Your task to perform on an android device: Open Chrome and go to the settings page Image 0: 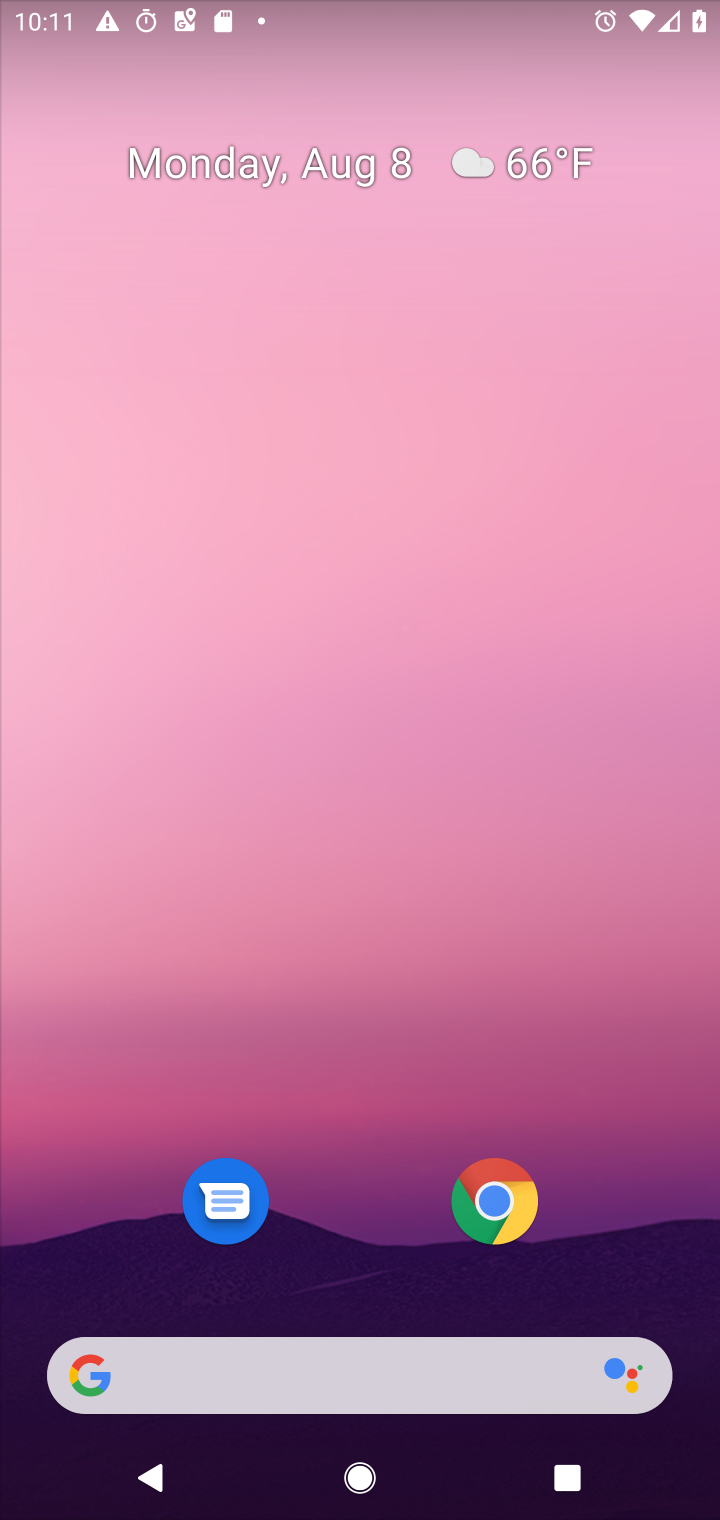
Step 0: press home button
Your task to perform on an android device: Open Chrome and go to the settings page Image 1: 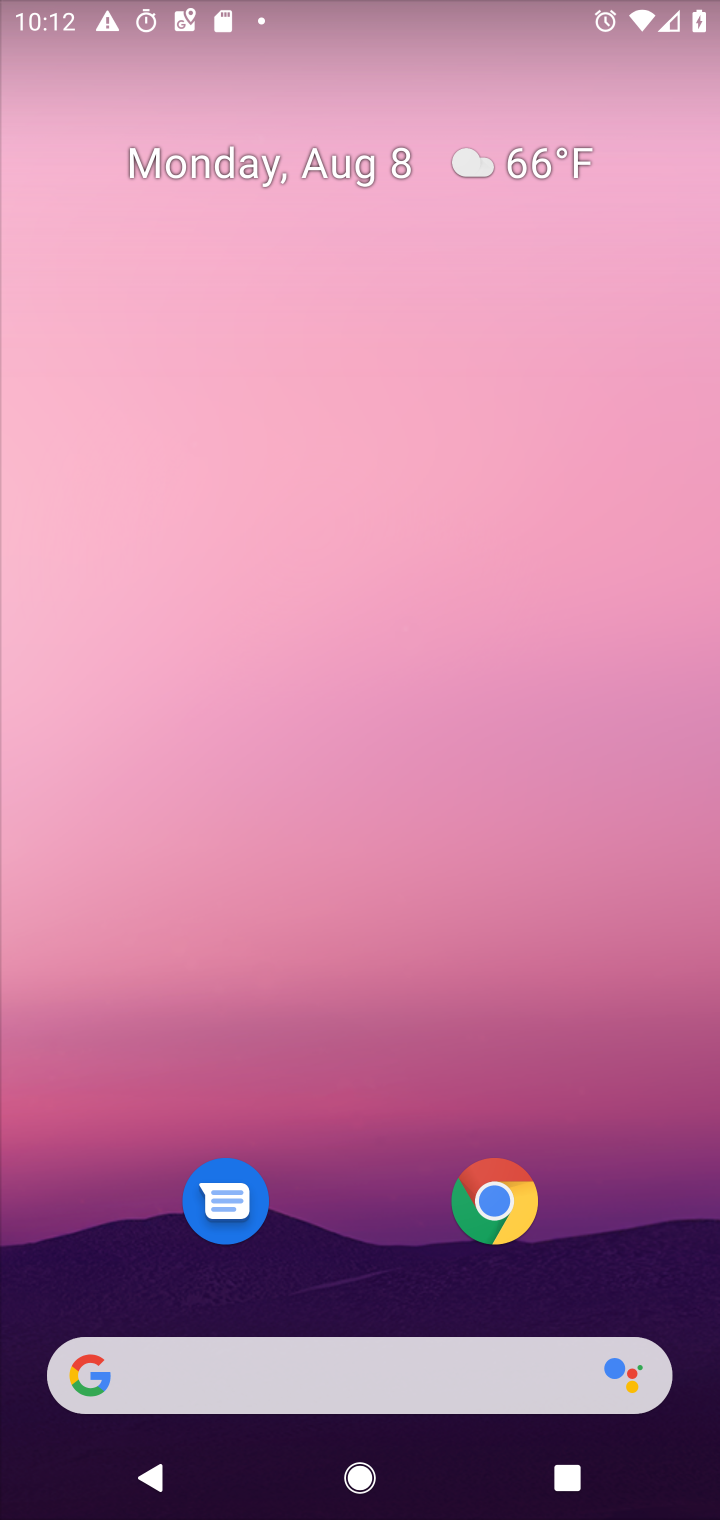
Step 1: drag from (378, 1266) to (427, 325)
Your task to perform on an android device: Open Chrome and go to the settings page Image 2: 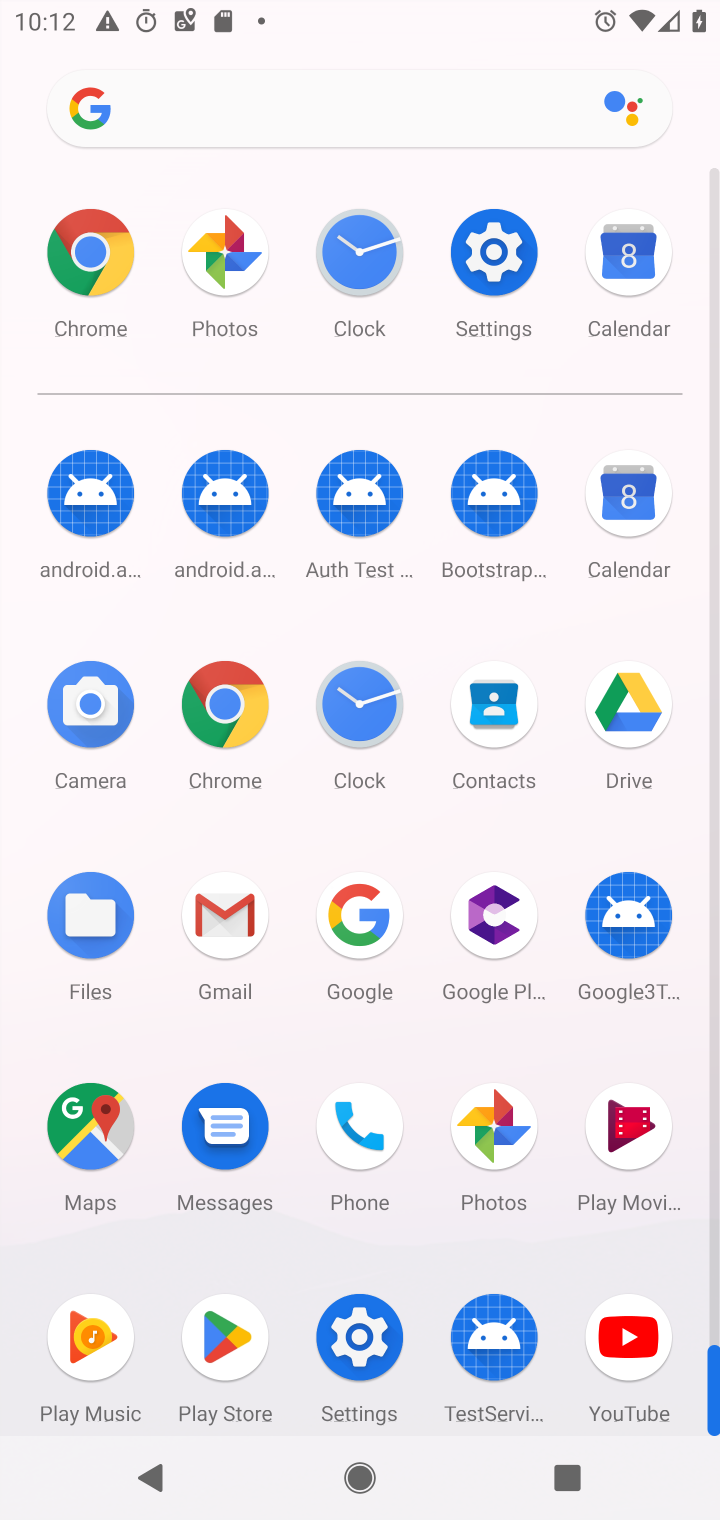
Step 2: click (211, 715)
Your task to perform on an android device: Open Chrome and go to the settings page Image 3: 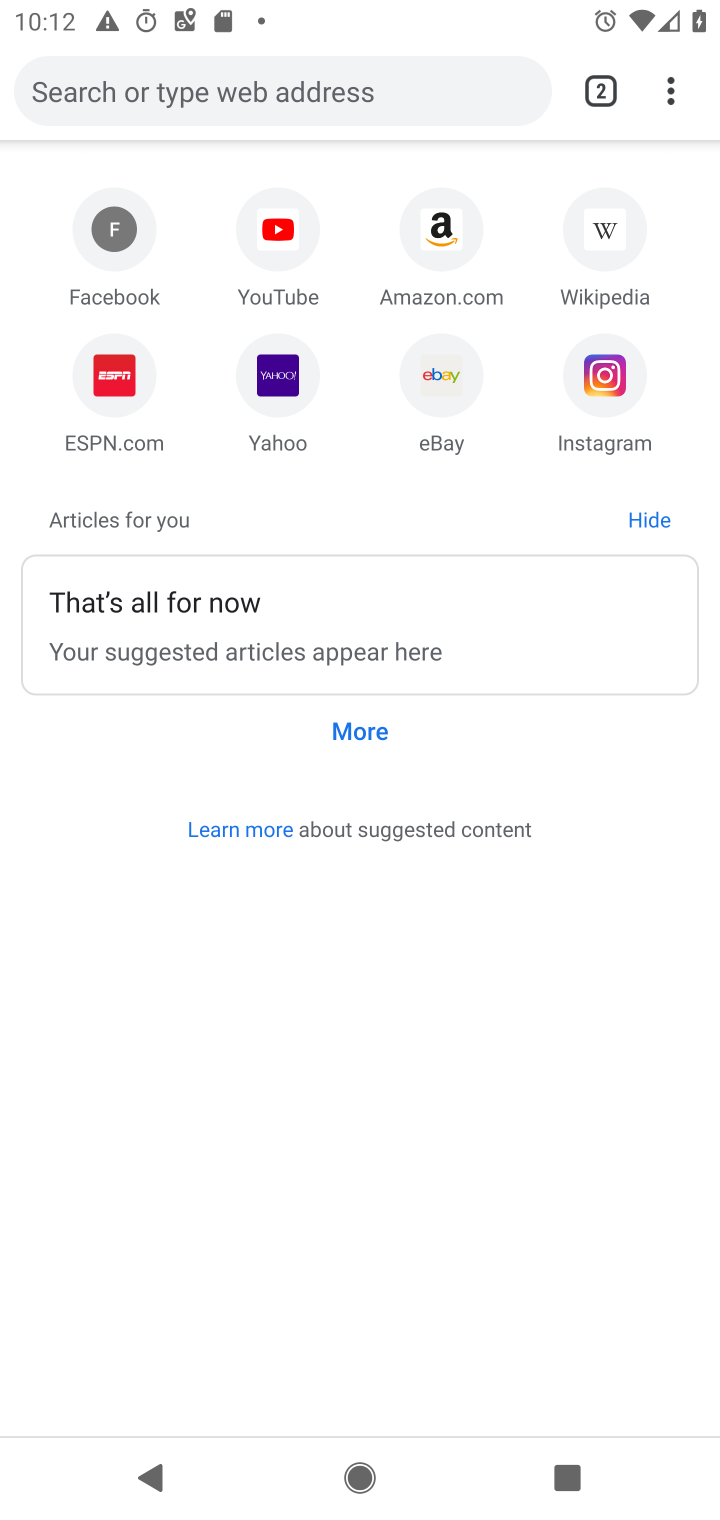
Step 3: click (667, 89)
Your task to perform on an android device: Open Chrome and go to the settings page Image 4: 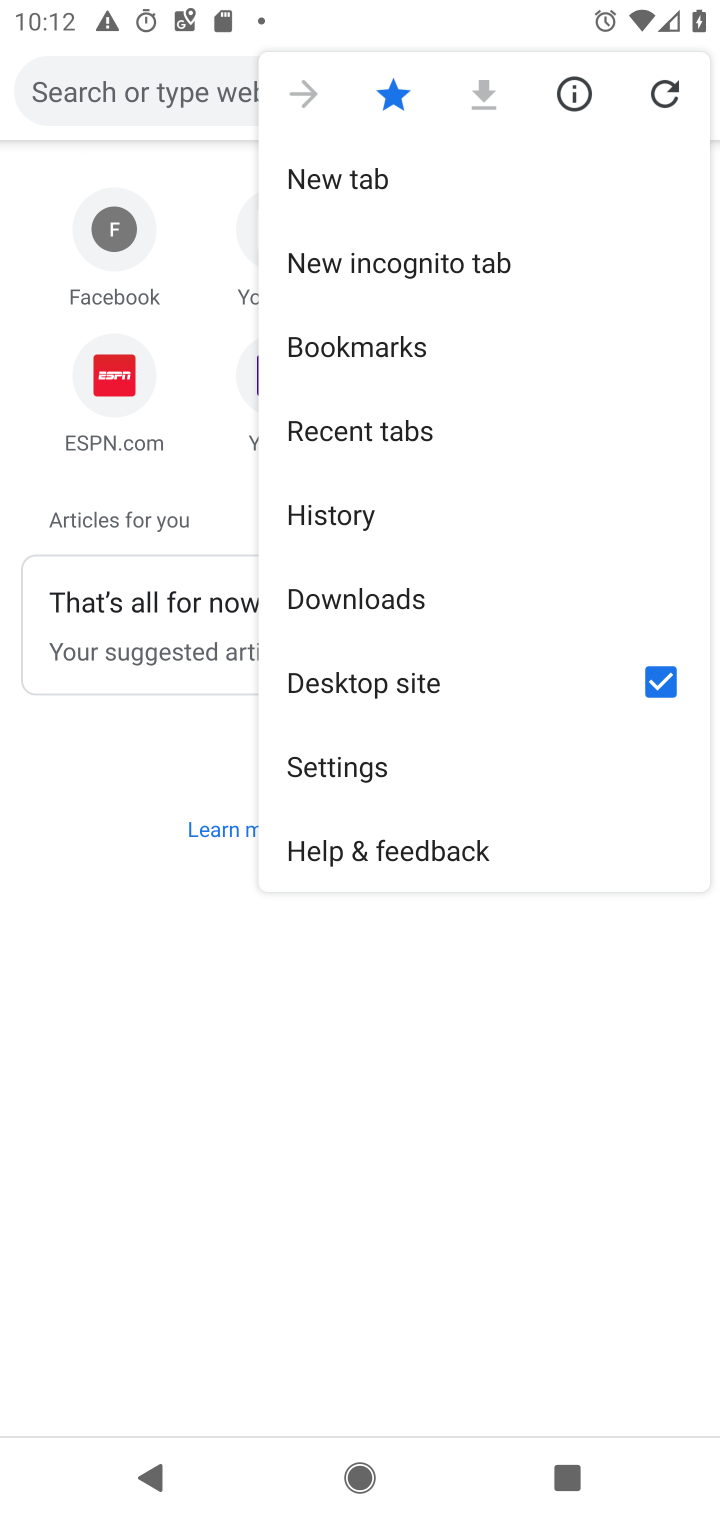
Step 4: click (387, 762)
Your task to perform on an android device: Open Chrome and go to the settings page Image 5: 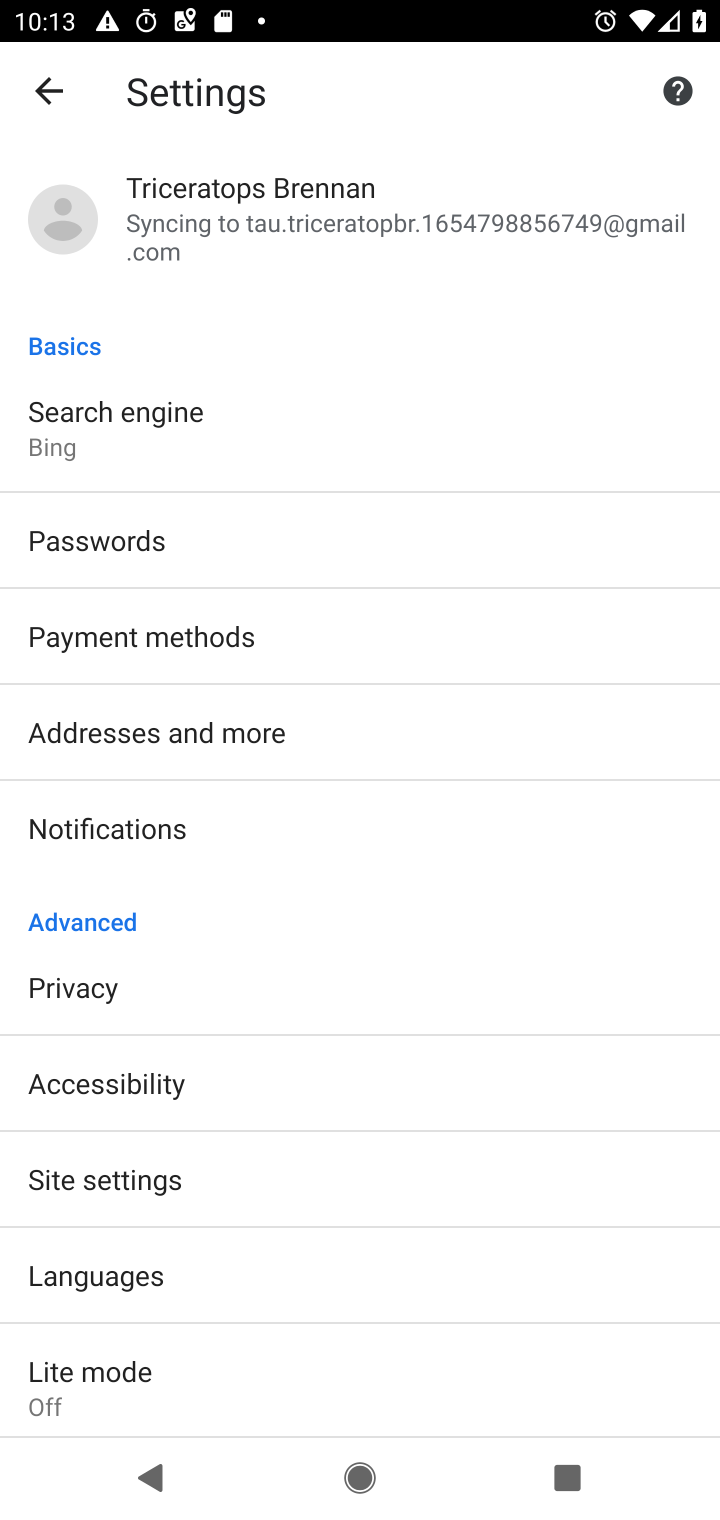
Step 5: task complete